Your task to perform on an android device: Go to battery settings Image 0: 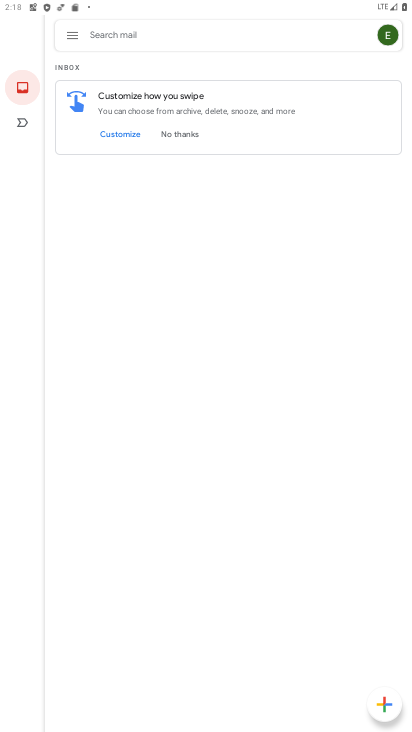
Step 0: press home button
Your task to perform on an android device: Go to battery settings Image 1: 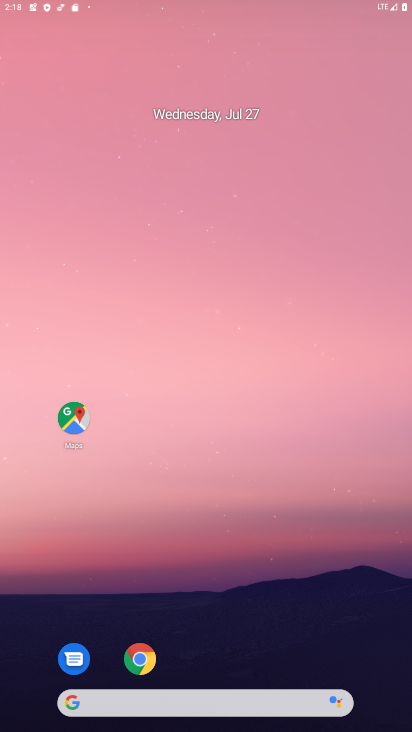
Step 1: click (407, 513)
Your task to perform on an android device: Go to battery settings Image 2: 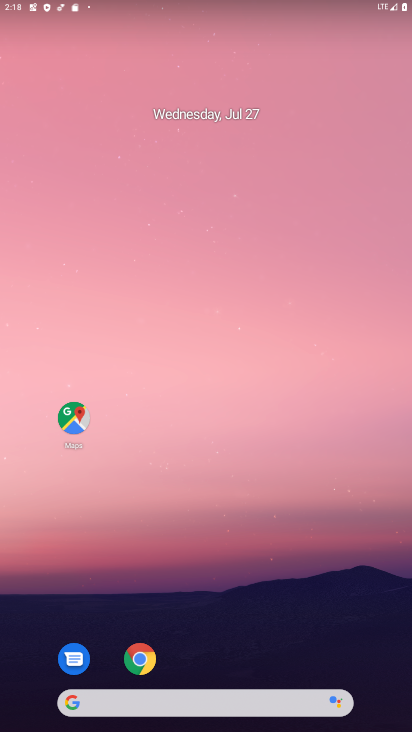
Step 2: drag from (209, 711) to (208, 40)
Your task to perform on an android device: Go to battery settings Image 3: 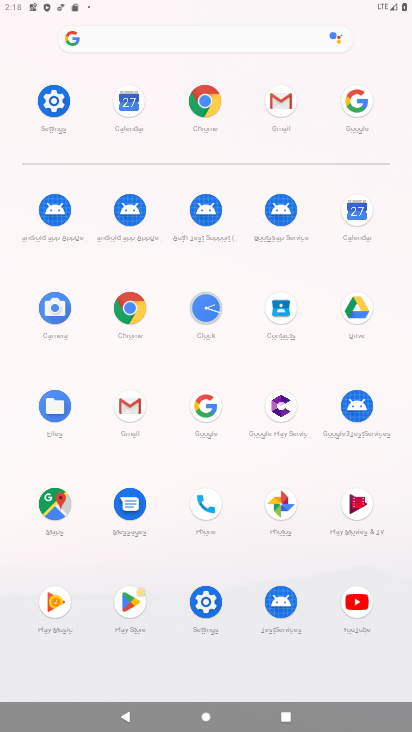
Step 3: click (59, 96)
Your task to perform on an android device: Go to battery settings Image 4: 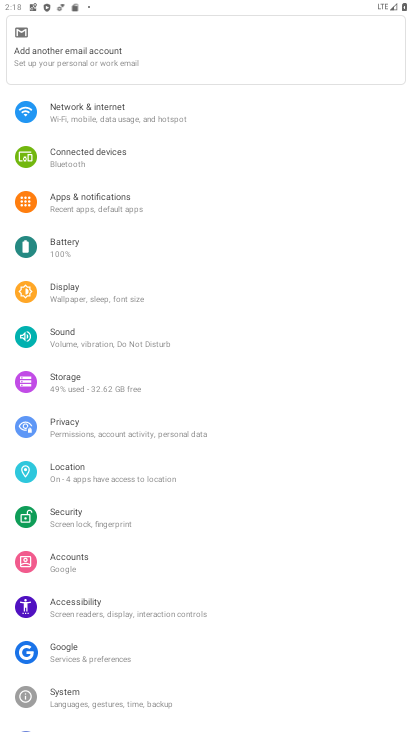
Step 4: click (60, 243)
Your task to perform on an android device: Go to battery settings Image 5: 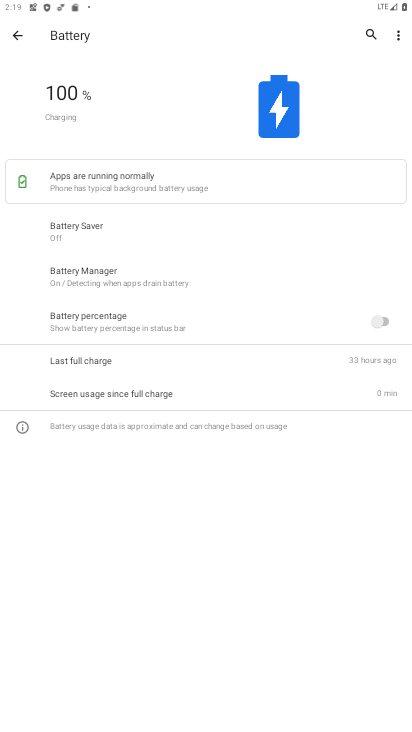
Step 5: task complete